Your task to perform on an android device: toggle data saver in the chrome app Image 0: 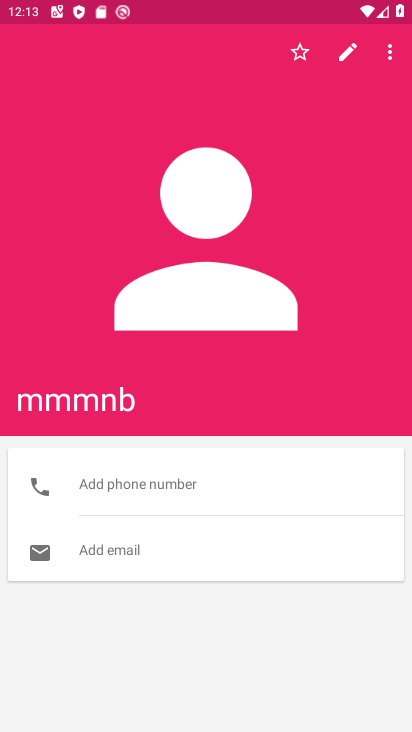
Step 0: press home button
Your task to perform on an android device: toggle data saver in the chrome app Image 1: 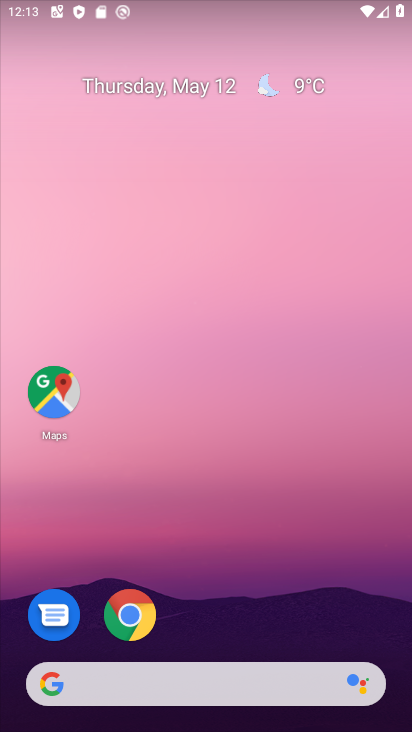
Step 1: click (131, 612)
Your task to perform on an android device: toggle data saver in the chrome app Image 2: 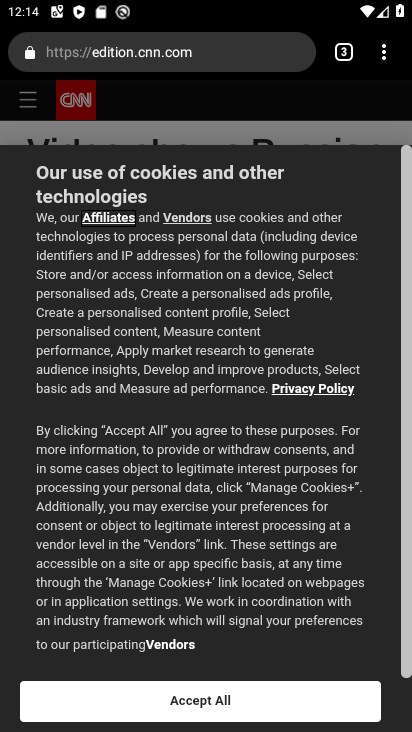
Step 2: click (380, 66)
Your task to perform on an android device: toggle data saver in the chrome app Image 3: 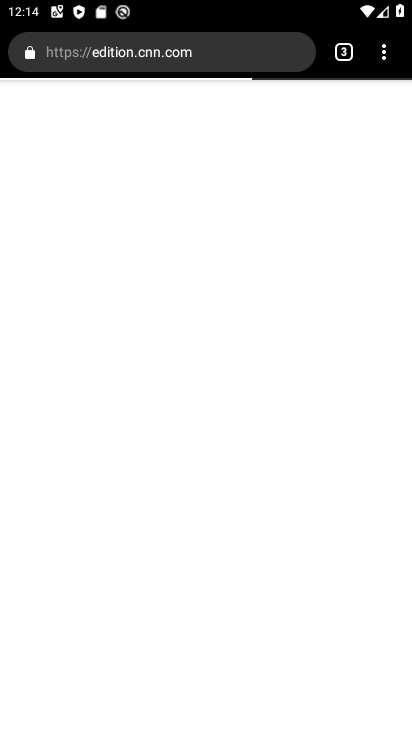
Step 3: drag from (375, 46) to (275, 600)
Your task to perform on an android device: toggle data saver in the chrome app Image 4: 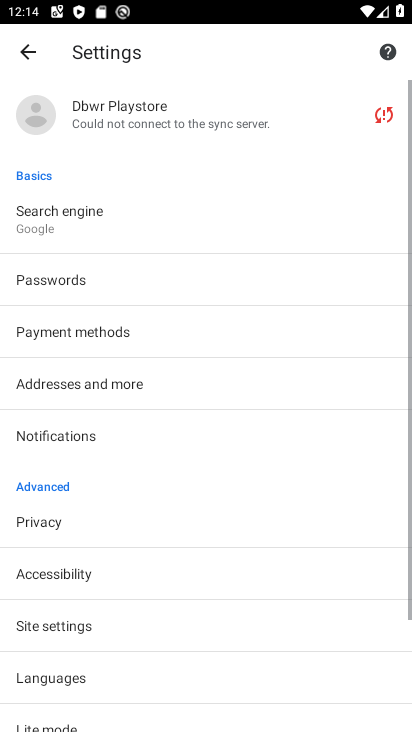
Step 4: drag from (161, 678) to (74, 219)
Your task to perform on an android device: toggle data saver in the chrome app Image 5: 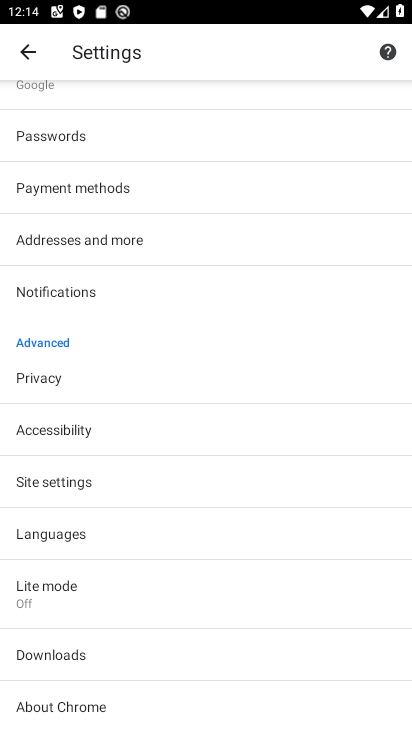
Step 5: click (130, 601)
Your task to perform on an android device: toggle data saver in the chrome app Image 6: 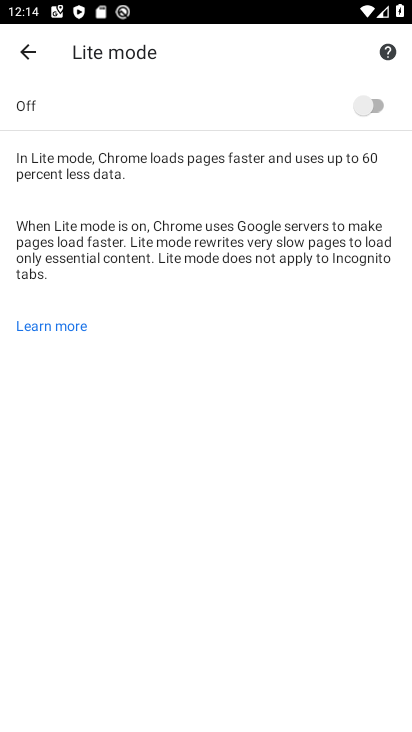
Step 6: click (353, 114)
Your task to perform on an android device: toggle data saver in the chrome app Image 7: 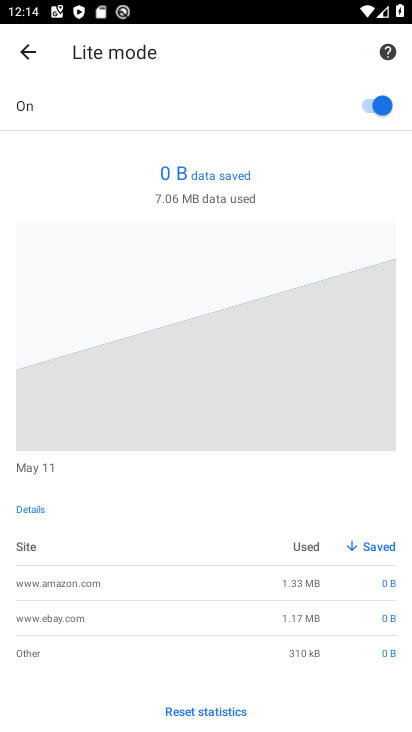
Step 7: task complete